Your task to perform on an android device: Turn on the flashlight Image 0: 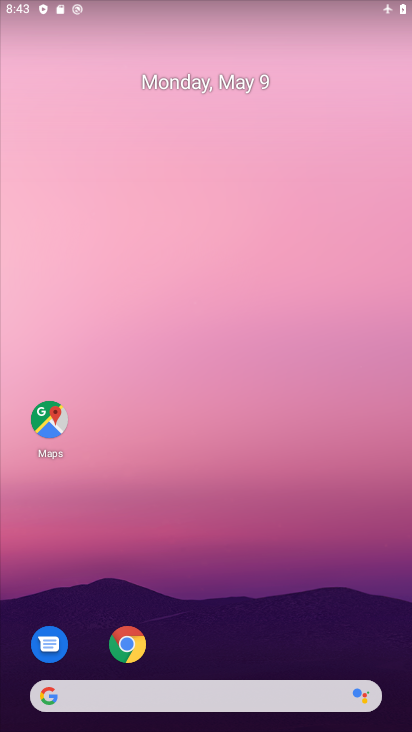
Step 0: drag from (305, 587) to (290, 111)
Your task to perform on an android device: Turn on the flashlight Image 1: 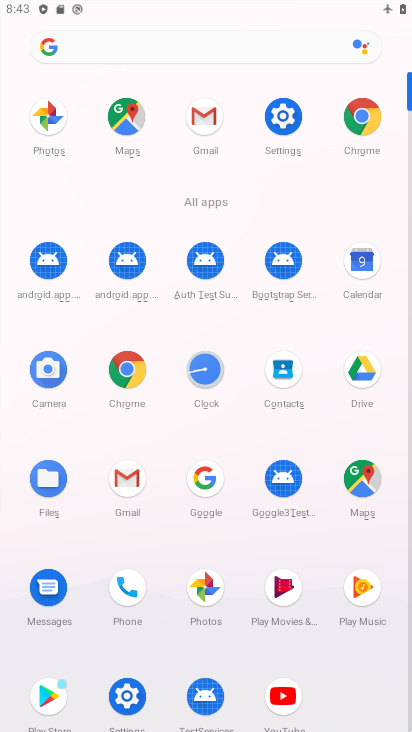
Step 1: click (287, 114)
Your task to perform on an android device: Turn on the flashlight Image 2: 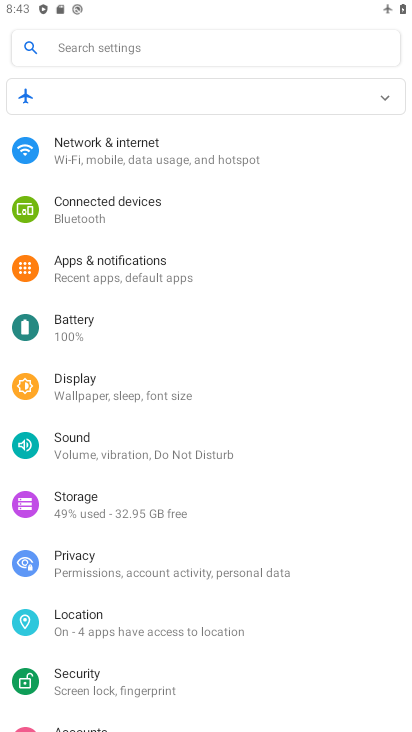
Step 2: click (130, 280)
Your task to perform on an android device: Turn on the flashlight Image 3: 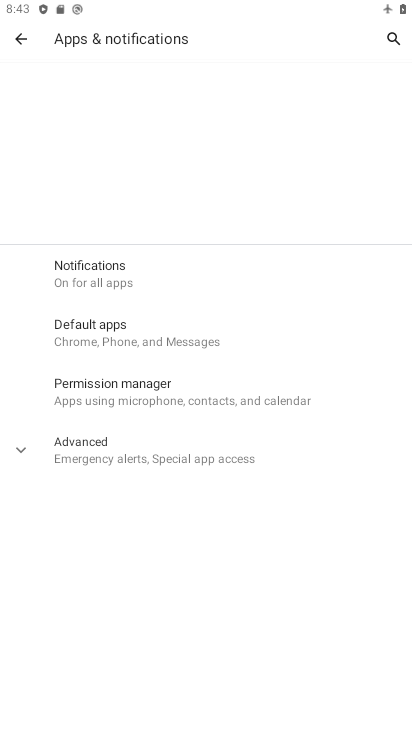
Step 3: click (187, 435)
Your task to perform on an android device: Turn on the flashlight Image 4: 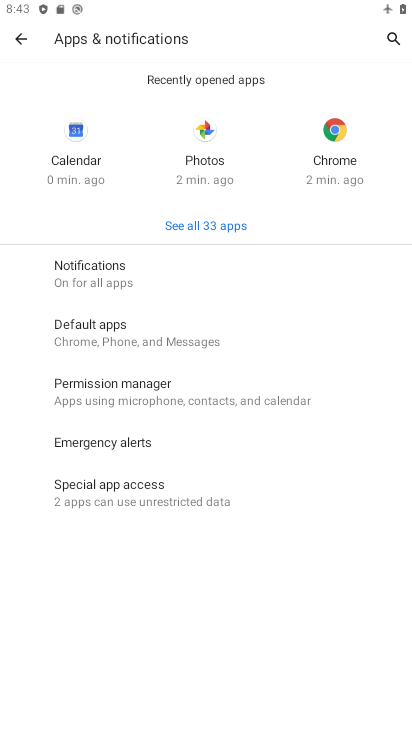
Step 4: task complete